Your task to perform on an android device: delete browsing data in the chrome app Image 0: 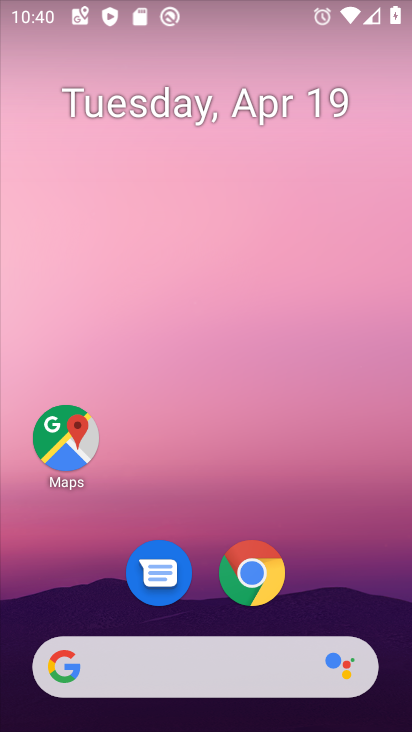
Step 0: click (254, 583)
Your task to perform on an android device: delete browsing data in the chrome app Image 1: 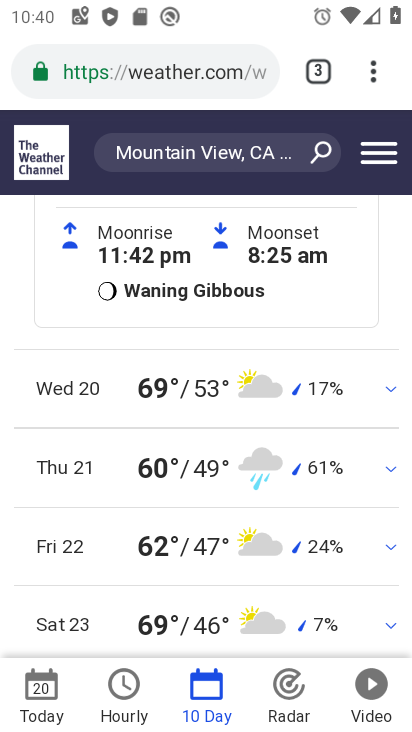
Step 1: drag from (374, 70) to (104, 484)
Your task to perform on an android device: delete browsing data in the chrome app Image 2: 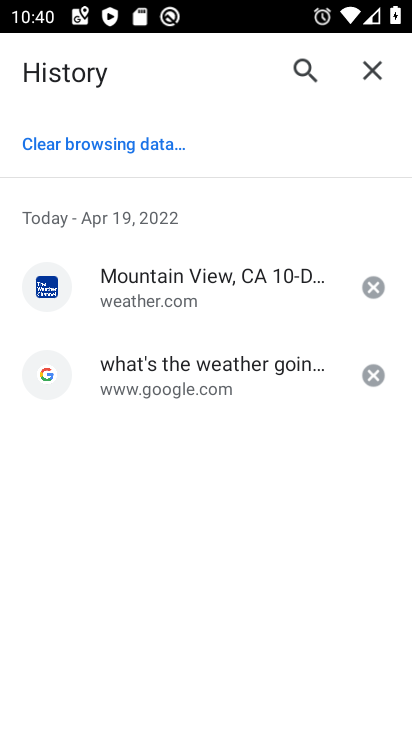
Step 2: click (101, 148)
Your task to perform on an android device: delete browsing data in the chrome app Image 3: 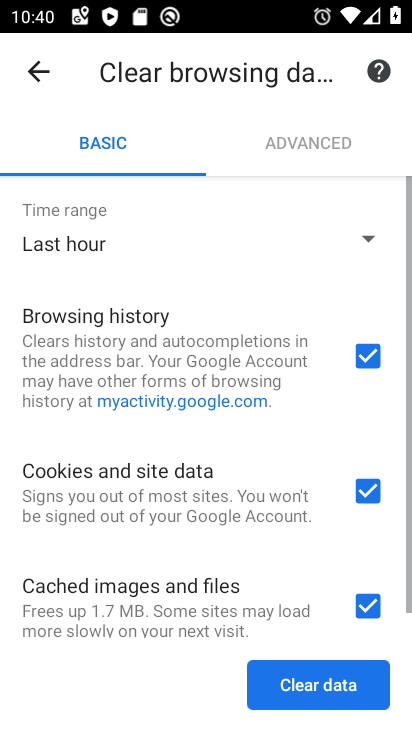
Step 3: click (308, 674)
Your task to perform on an android device: delete browsing data in the chrome app Image 4: 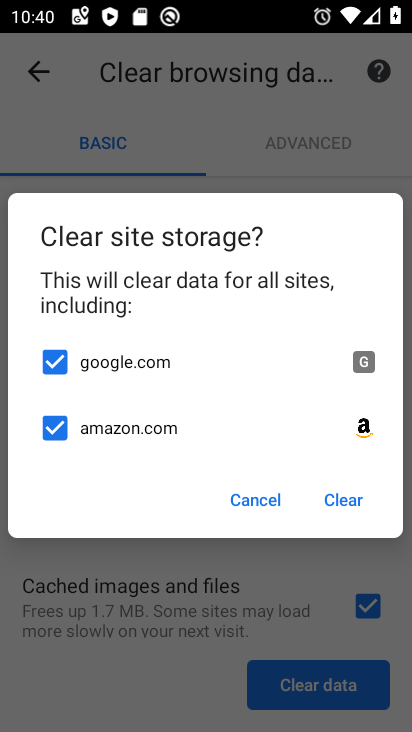
Step 4: click (331, 500)
Your task to perform on an android device: delete browsing data in the chrome app Image 5: 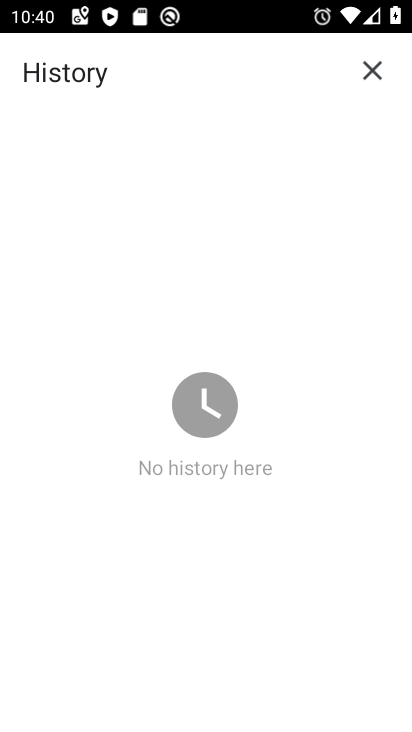
Step 5: task complete